Your task to perform on an android device: set default search engine in the chrome app Image 0: 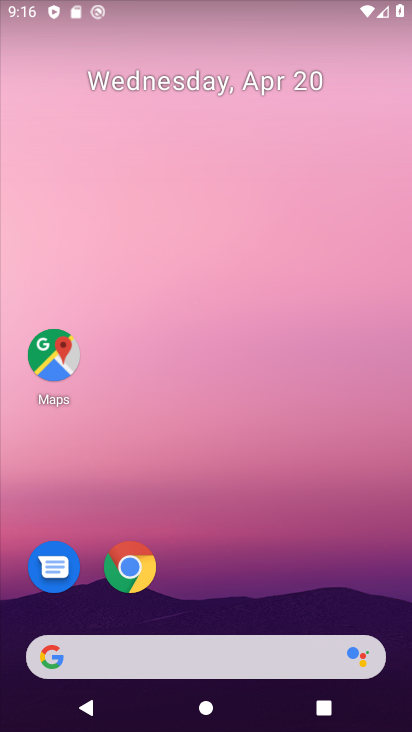
Step 0: drag from (353, 569) to (363, 159)
Your task to perform on an android device: set default search engine in the chrome app Image 1: 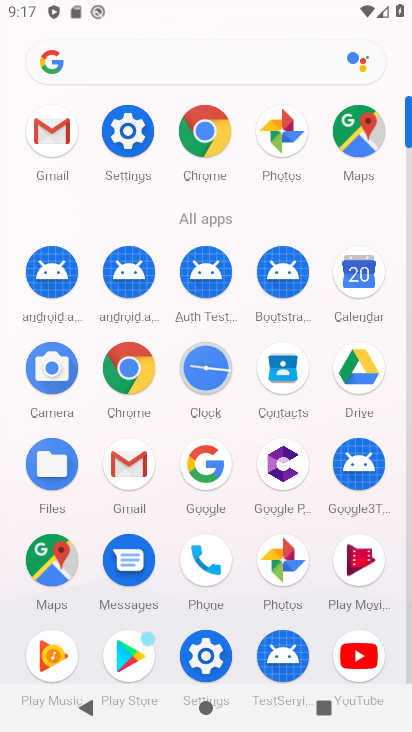
Step 1: click (133, 382)
Your task to perform on an android device: set default search engine in the chrome app Image 2: 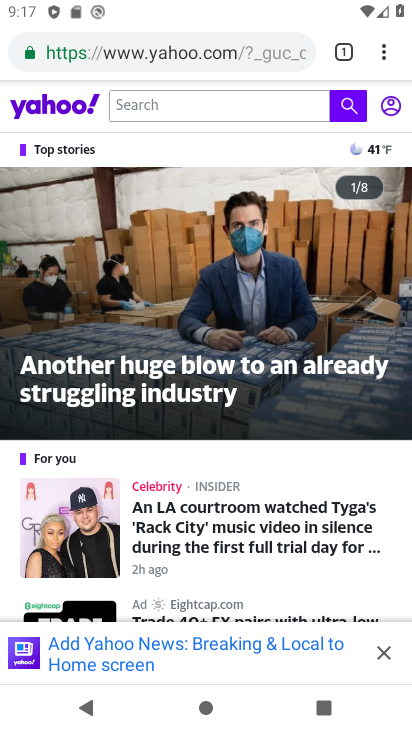
Step 2: click (386, 51)
Your task to perform on an android device: set default search engine in the chrome app Image 3: 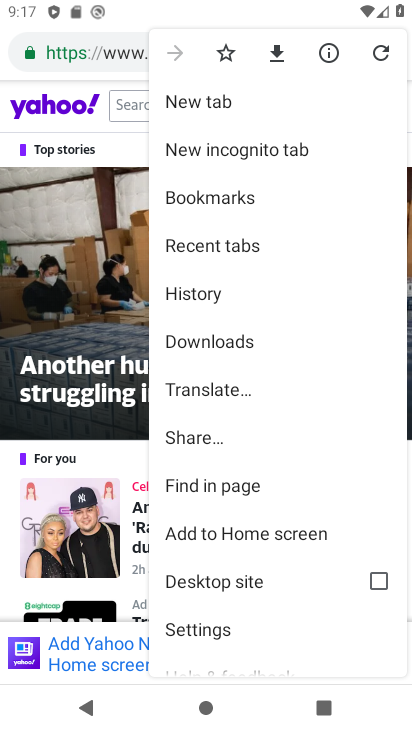
Step 3: click (212, 628)
Your task to perform on an android device: set default search engine in the chrome app Image 4: 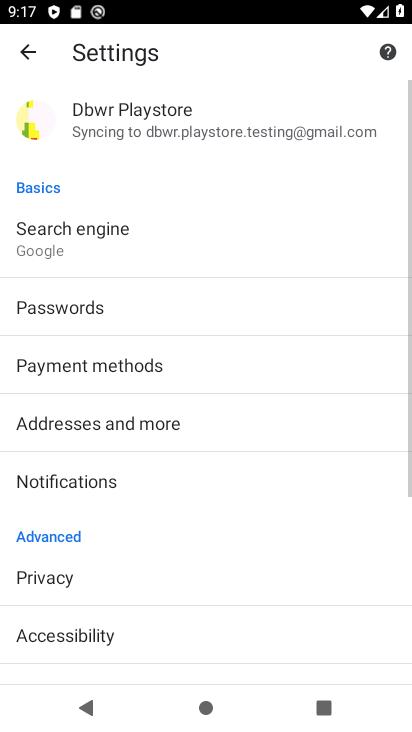
Step 4: drag from (268, 596) to (298, 403)
Your task to perform on an android device: set default search engine in the chrome app Image 5: 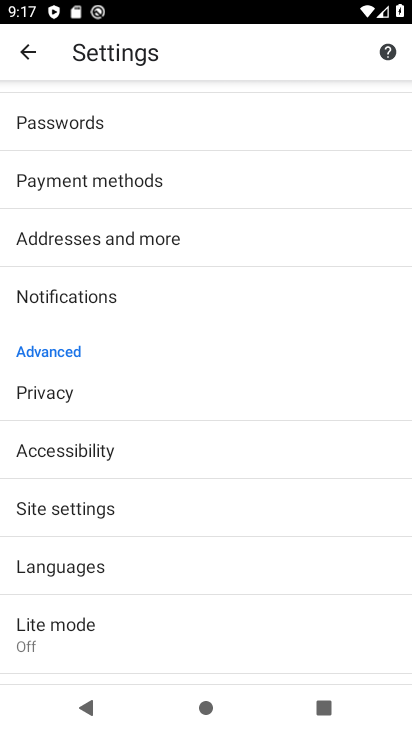
Step 5: drag from (272, 626) to (283, 433)
Your task to perform on an android device: set default search engine in the chrome app Image 6: 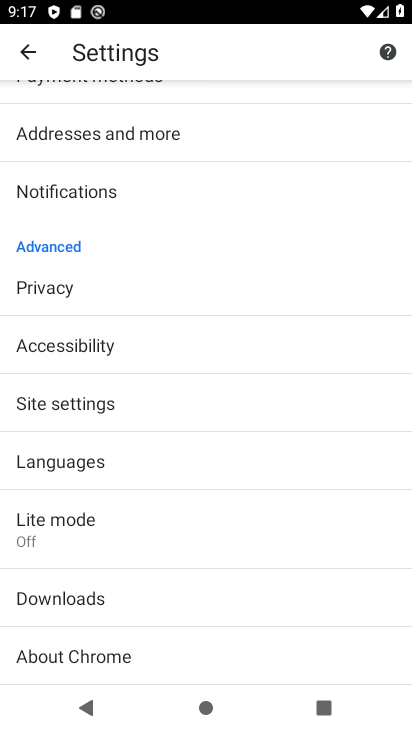
Step 6: drag from (277, 327) to (277, 501)
Your task to perform on an android device: set default search engine in the chrome app Image 7: 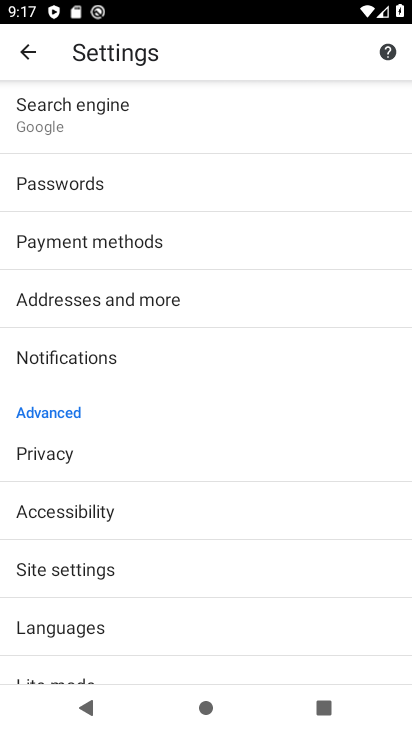
Step 7: drag from (276, 225) to (269, 415)
Your task to perform on an android device: set default search engine in the chrome app Image 8: 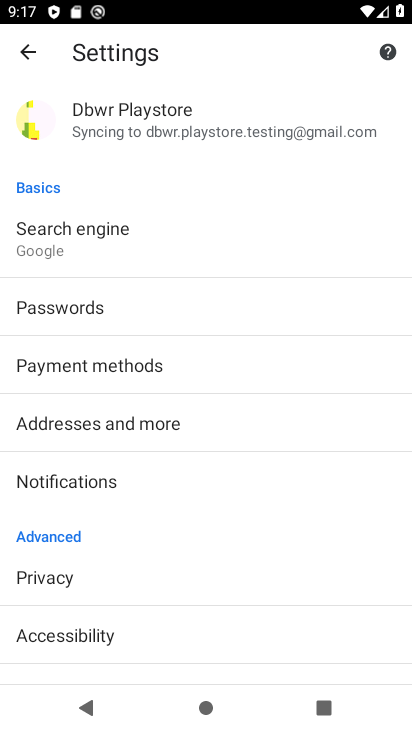
Step 8: drag from (229, 236) to (234, 421)
Your task to perform on an android device: set default search engine in the chrome app Image 9: 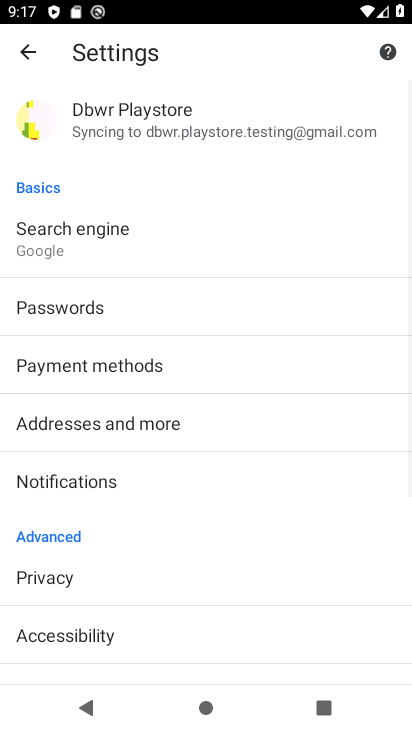
Step 9: click (152, 241)
Your task to perform on an android device: set default search engine in the chrome app Image 10: 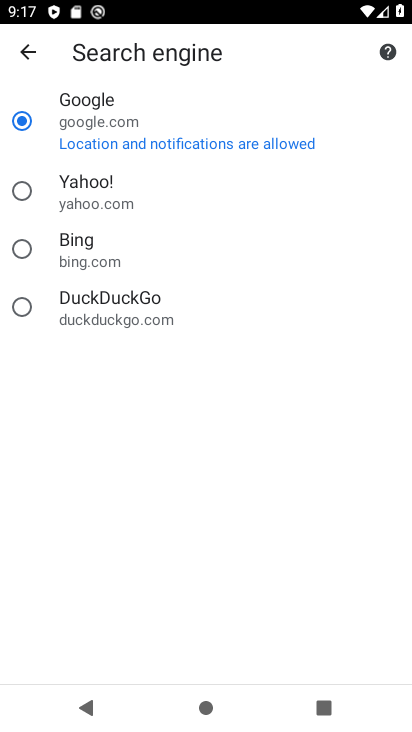
Step 10: click (92, 255)
Your task to perform on an android device: set default search engine in the chrome app Image 11: 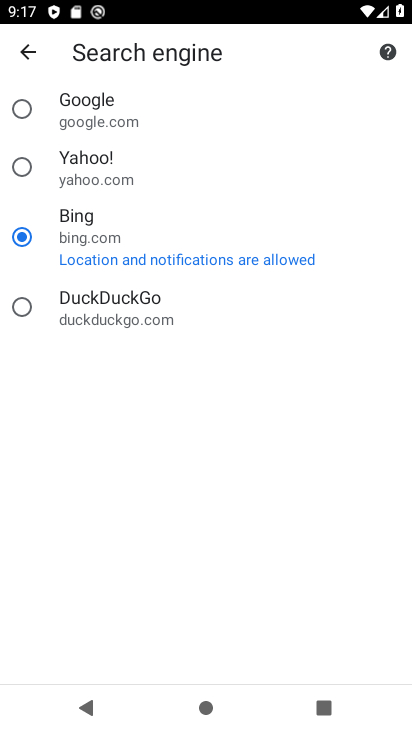
Step 11: task complete